Your task to perform on an android device: Open the calendar app, open the side menu, and click the "Day" option Image 0: 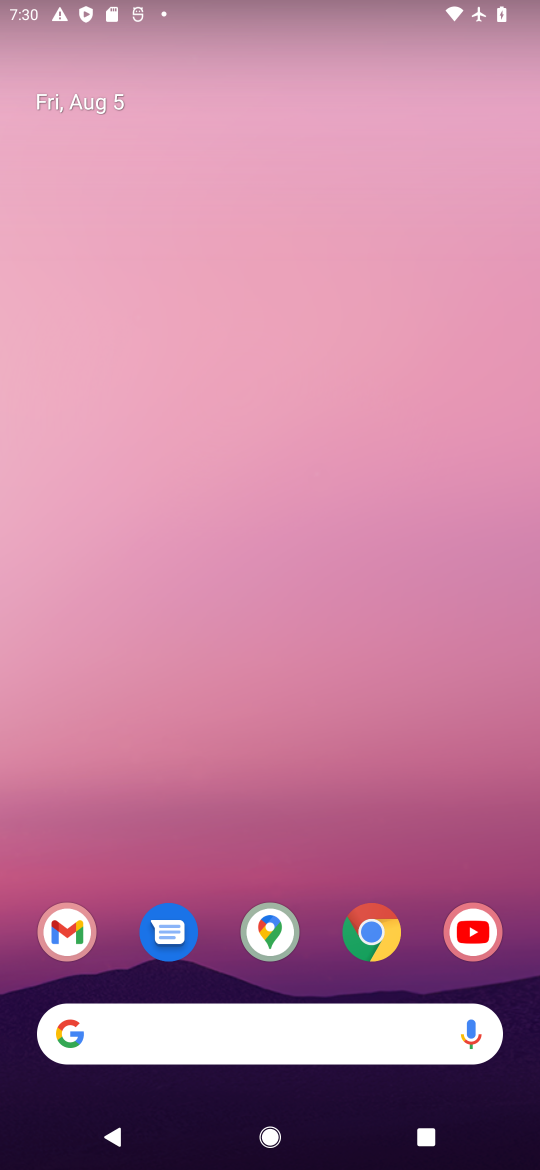
Step 0: drag from (141, 1053) to (281, 195)
Your task to perform on an android device: Open the calendar app, open the side menu, and click the "Day" option Image 1: 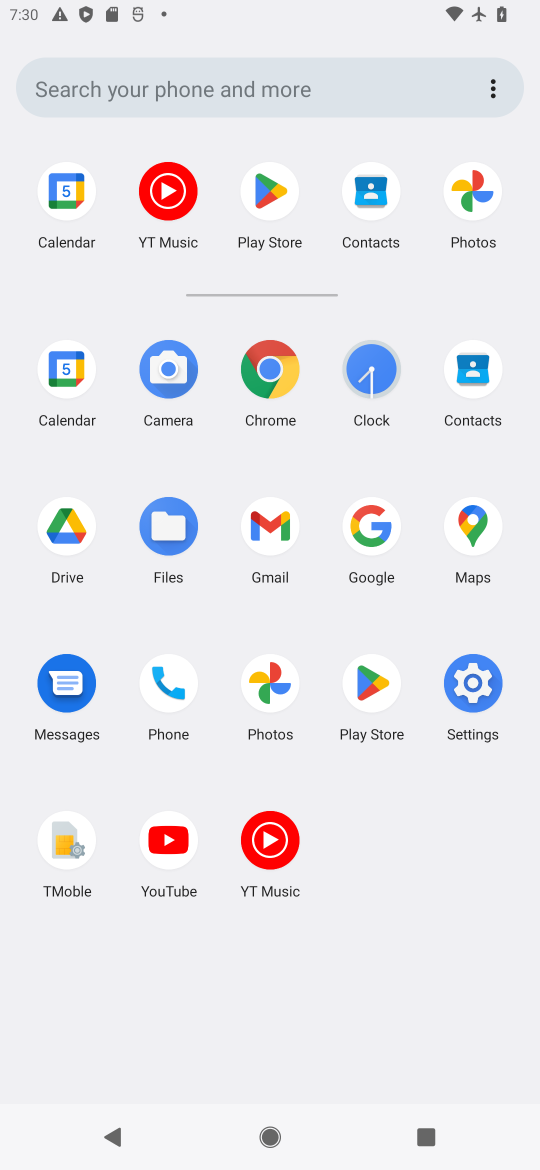
Step 1: click (68, 370)
Your task to perform on an android device: Open the calendar app, open the side menu, and click the "Day" option Image 2: 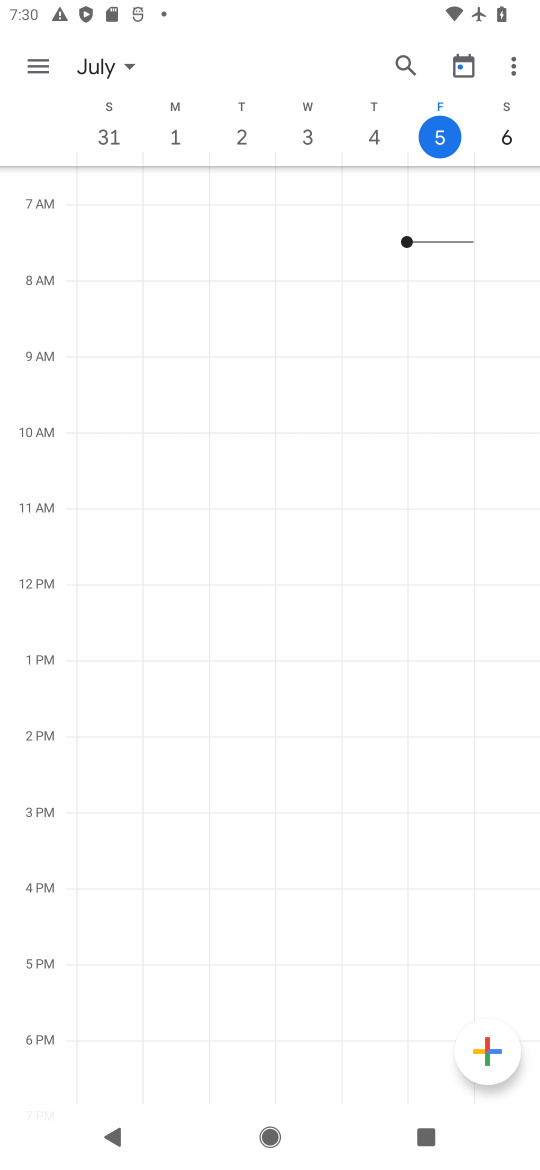
Step 2: click (35, 66)
Your task to perform on an android device: Open the calendar app, open the side menu, and click the "Day" option Image 3: 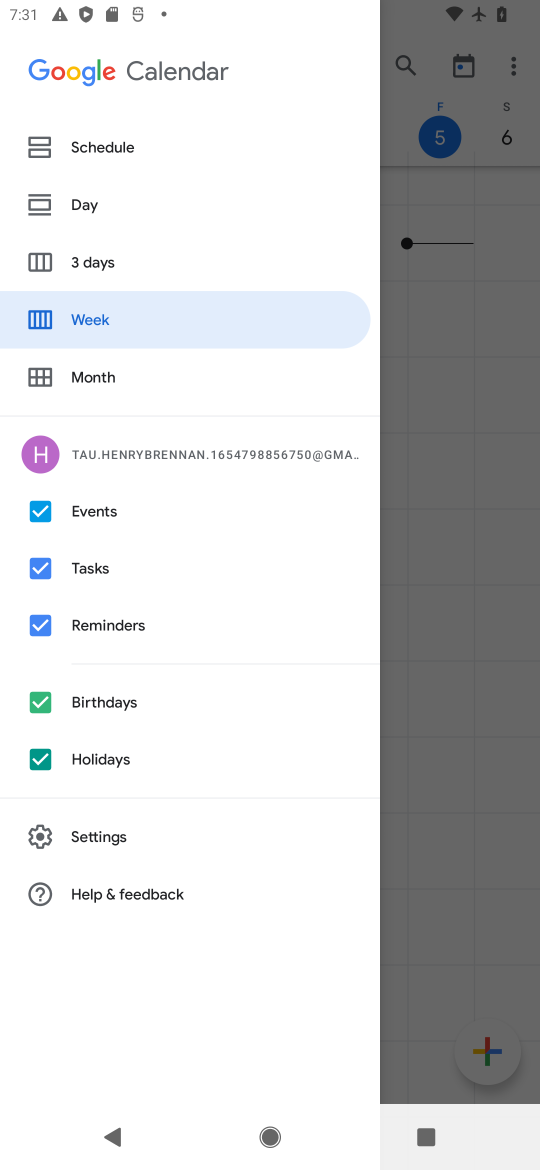
Step 3: click (102, 195)
Your task to perform on an android device: Open the calendar app, open the side menu, and click the "Day" option Image 4: 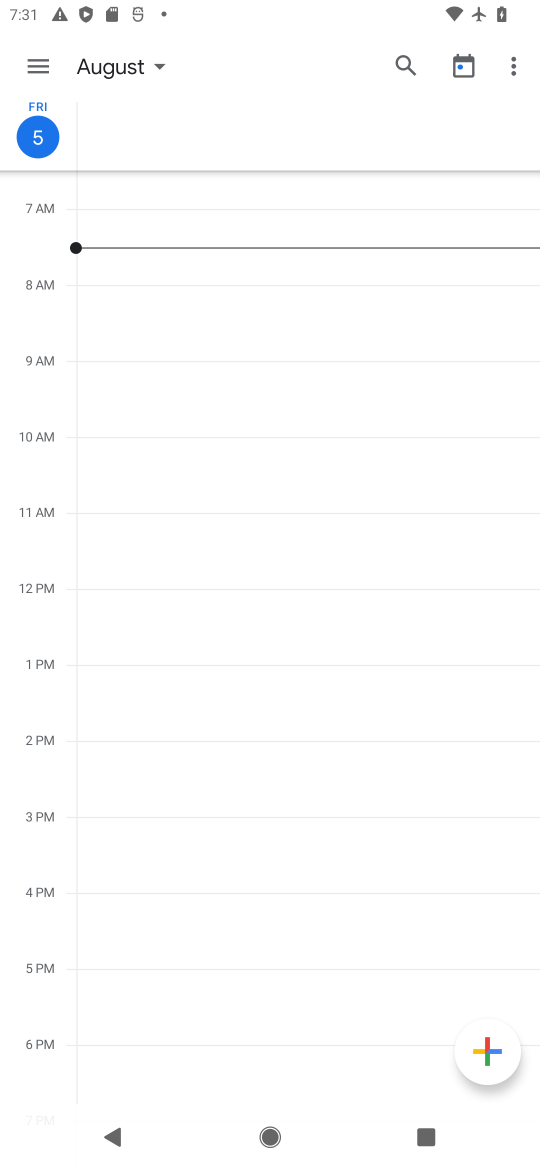
Step 4: task complete